Your task to perform on an android device: open app "Walmart Shopping & Grocery" (install if not already installed) and enter user name: "Hans@icloud.com" and password: "executing" Image 0: 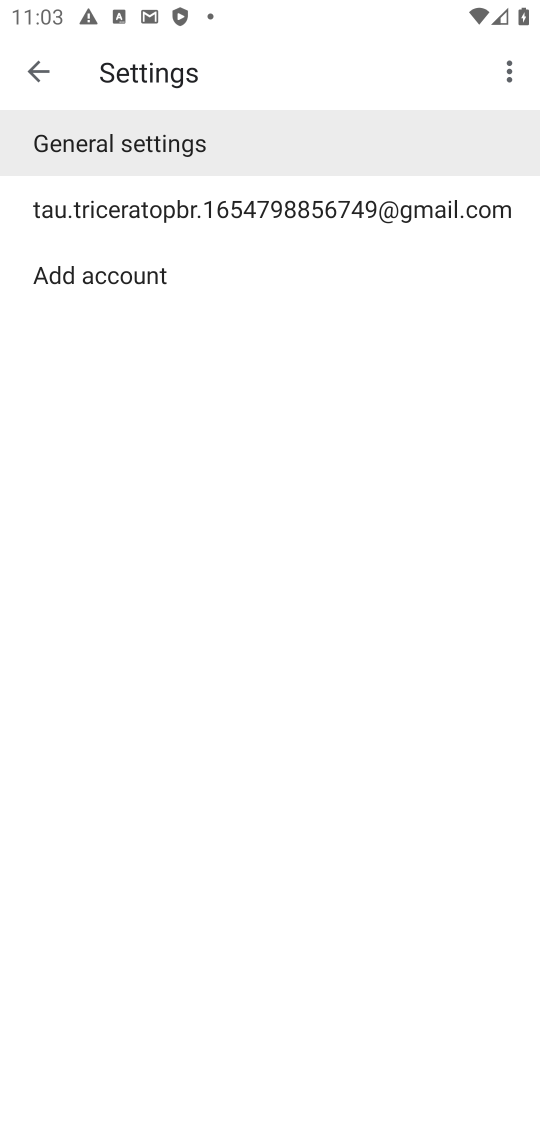
Step 0: press home button
Your task to perform on an android device: open app "Walmart Shopping & Grocery" (install if not already installed) and enter user name: "Hans@icloud.com" and password: "executing" Image 1: 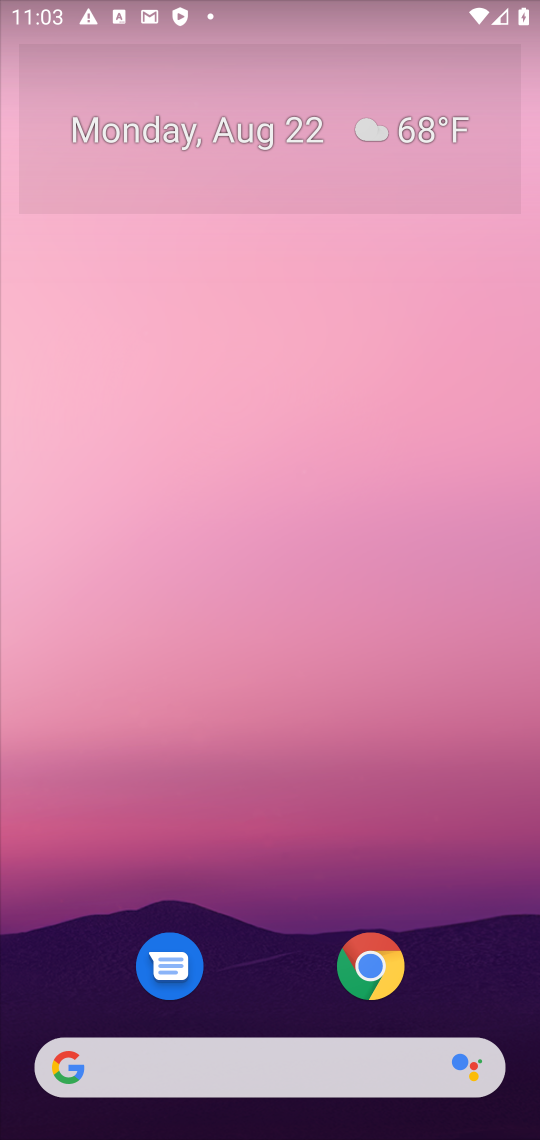
Step 1: drag from (454, 800) to (460, 107)
Your task to perform on an android device: open app "Walmart Shopping & Grocery" (install if not already installed) and enter user name: "Hans@icloud.com" and password: "executing" Image 2: 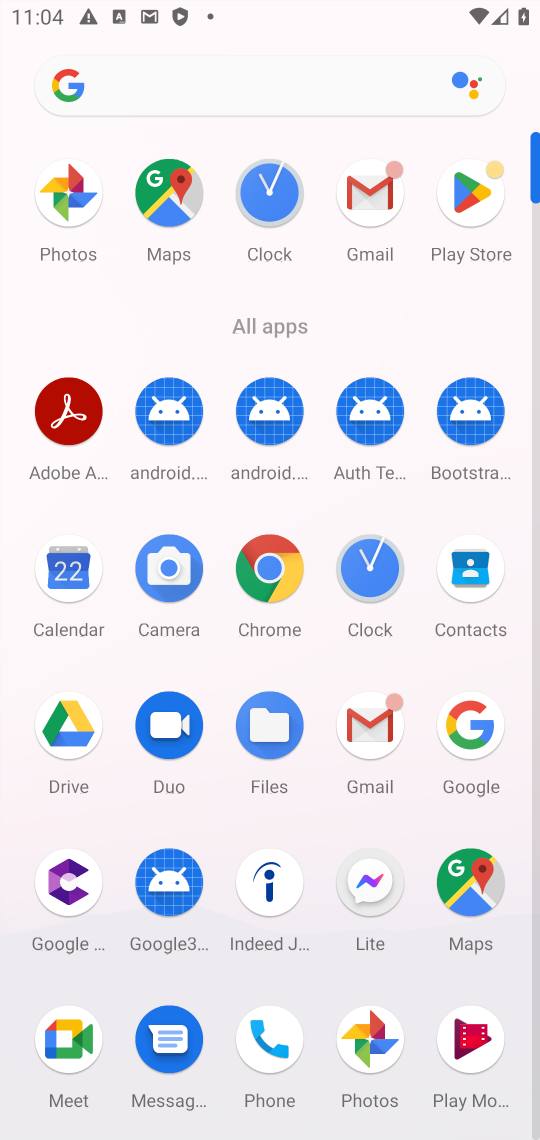
Step 2: click (476, 194)
Your task to perform on an android device: open app "Walmart Shopping & Grocery" (install if not already installed) and enter user name: "Hans@icloud.com" and password: "executing" Image 3: 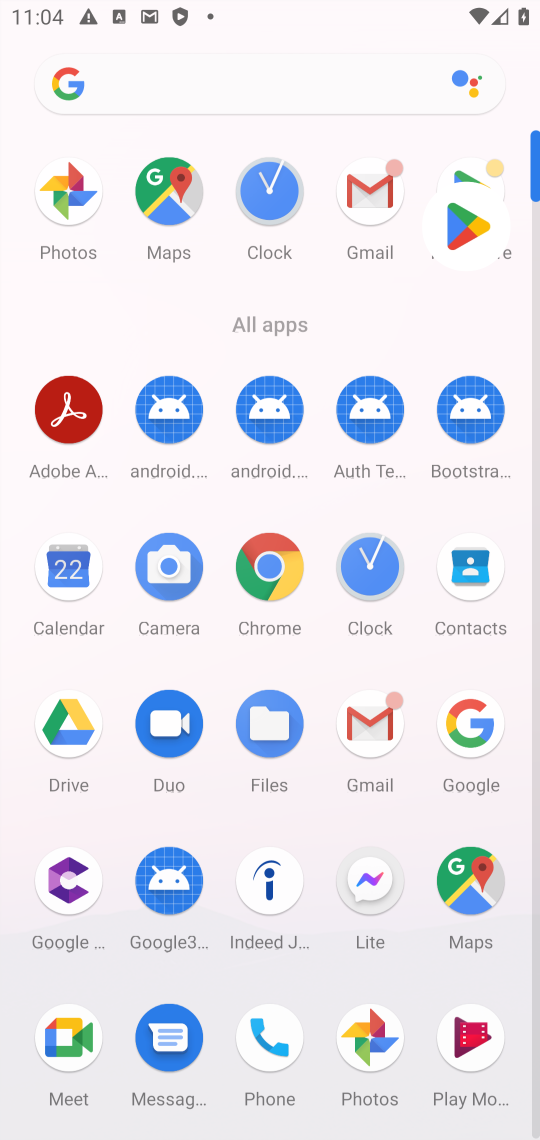
Step 3: click (470, 188)
Your task to perform on an android device: open app "Walmart Shopping & Grocery" (install if not already installed) and enter user name: "Hans@icloud.com" and password: "executing" Image 4: 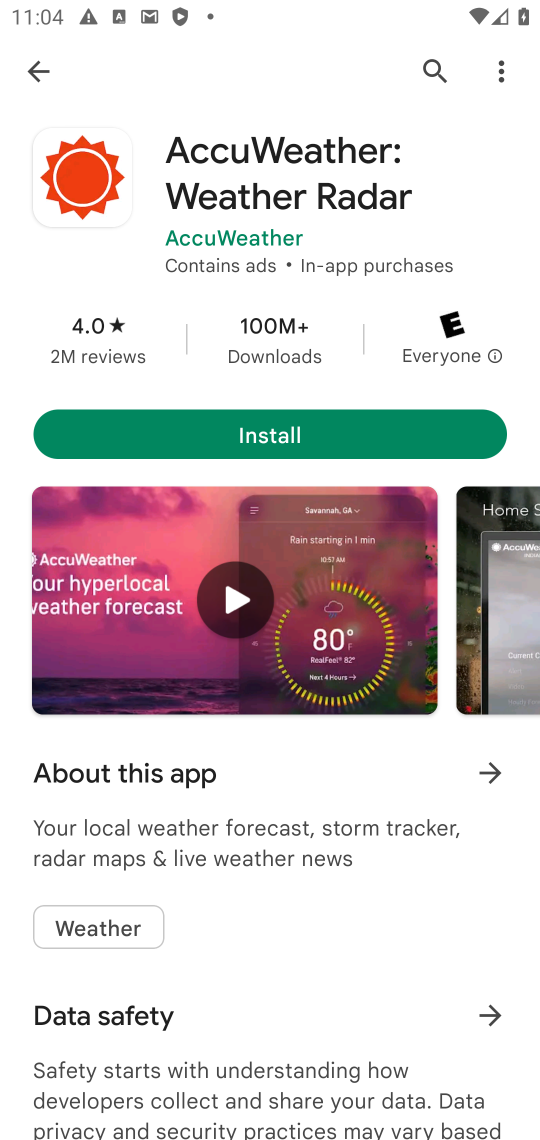
Step 4: press back button
Your task to perform on an android device: open app "Walmart Shopping & Grocery" (install if not already installed) and enter user name: "Hans@icloud.com" and password: "executing" Image 5: 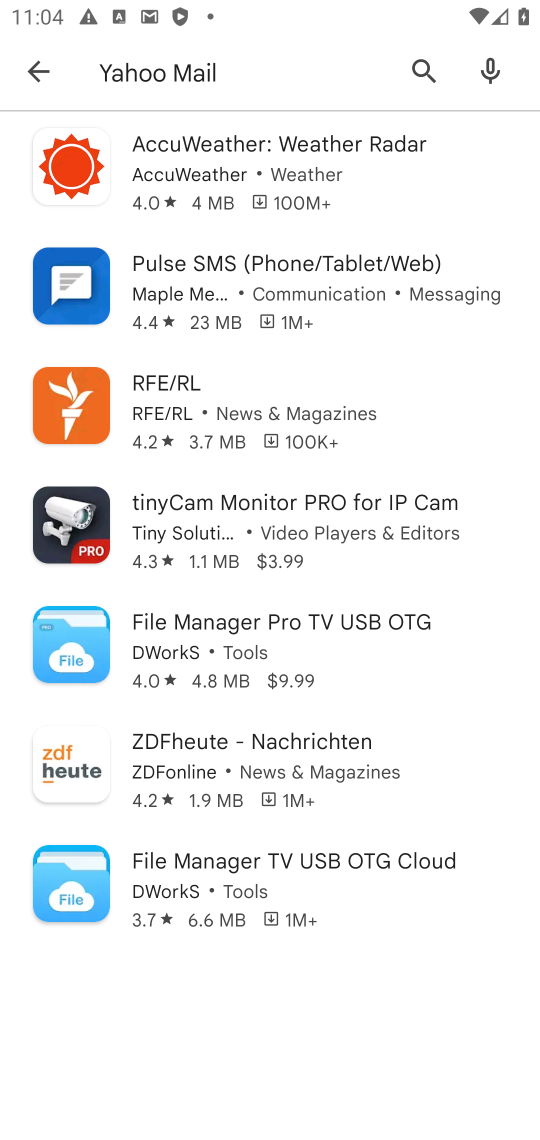
Step 5: press back button
Your task to perform on an android device: open app "Walmart Shopping & Grocery" (install if not already installed) and enter user name: "Hans@icloud.com" and password: "executing" Image 6: 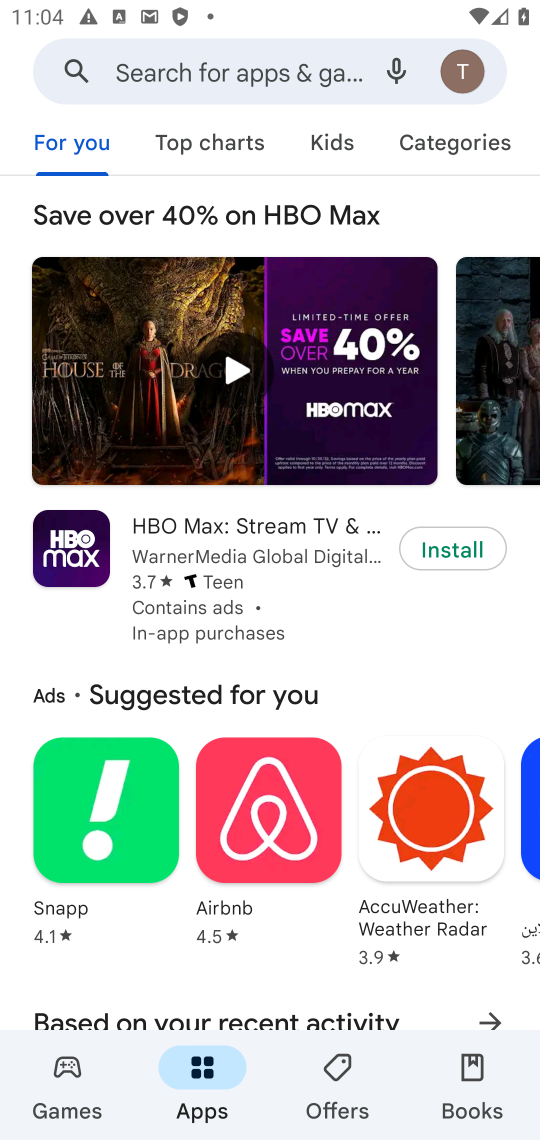
Step 6: click (247, 74)
Your task to perform on an android device: open app "Walmart Shopping & Grocery" (install if not already installed) and enter user name: "Hans@icloud.com" and password: "executing" Image 7: 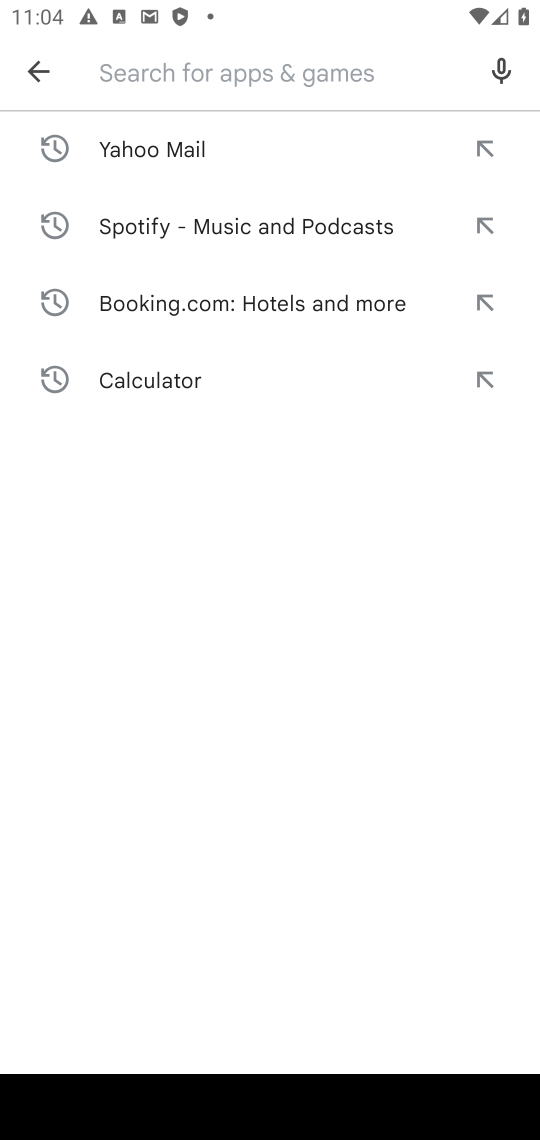
Step 7: type "Walmart Shopping & Grocery"
Your task to perform on an android device: open app "Walmart Shopping & Grocery" (install if not already installed) and enter user name: "Hans@icloud.com" and password: "executing" Image 8: 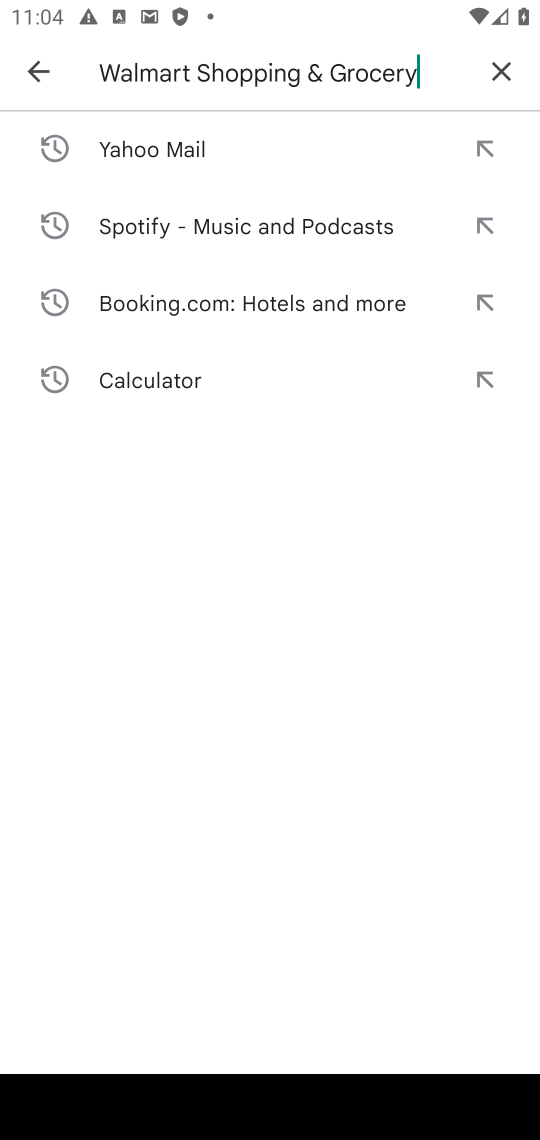
Step 8: press enter
Your task to perform on an android device: open app "Walmart Shopping & Grocery" (install if not already installed) and enter user name: "Hans@icloud.com" and password: "executing" Image 9: 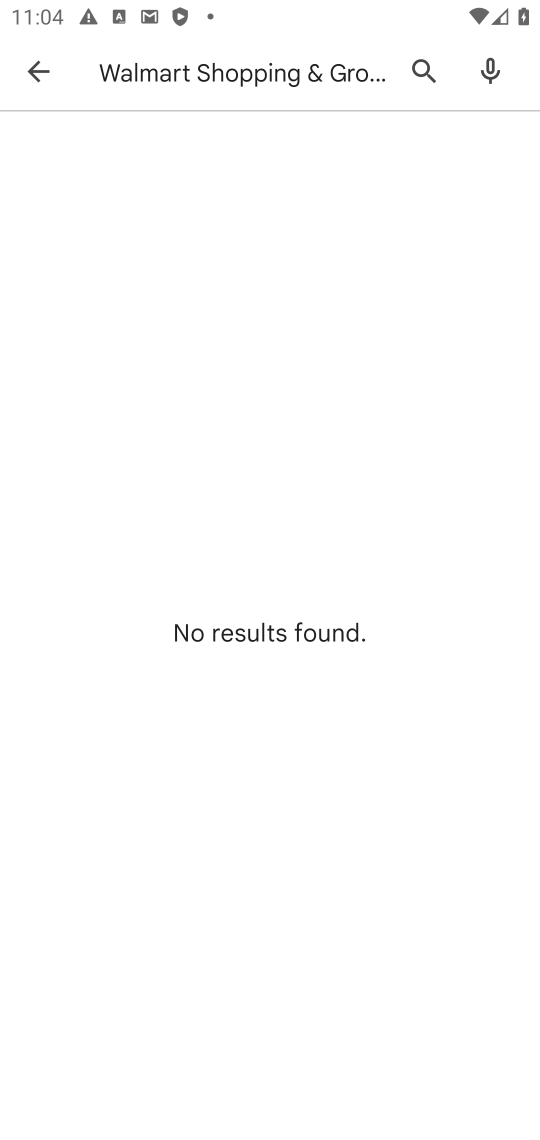
Step 9: task complete